Your task to perform on an android device: toggle javascript in the chrome app Image 0: 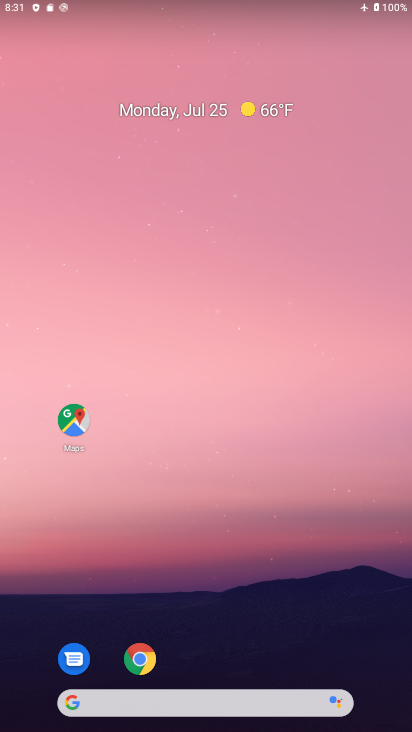
Step 0: drag from (288, 682) to (253, 133)
Your task to perform on an android device: toggle javascript in the chrome app Image 1: 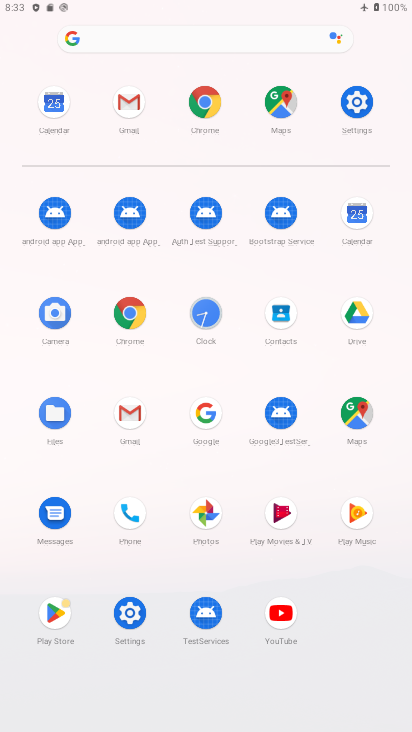
Step 1: click (131, 314)
Your task to perform on an android device: toggle javascript in the chrome app Image 2: 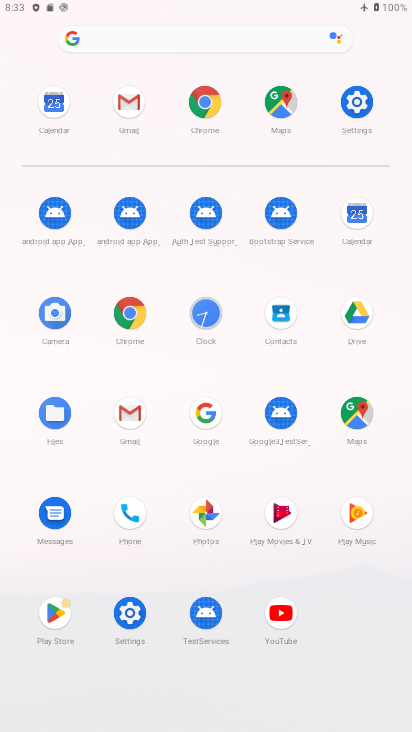
Step 2: click (131, 308)
Your task to perform on an android device: toggle javascript in the chrome app Image 3: 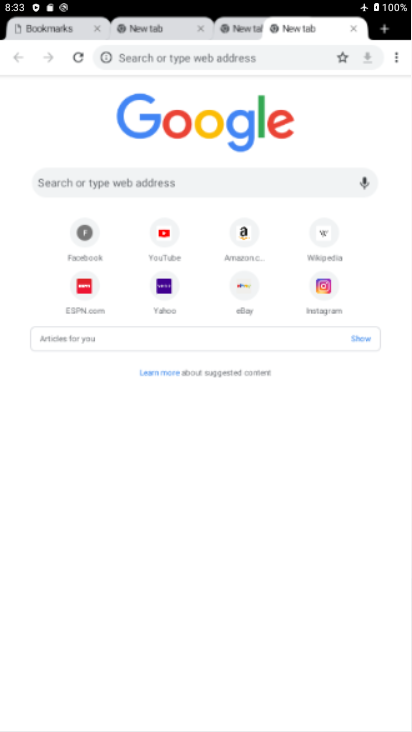
Step 3: click (137, 304)
Your task to perform on an android device: toggle javascript in the chrome app Image 4: 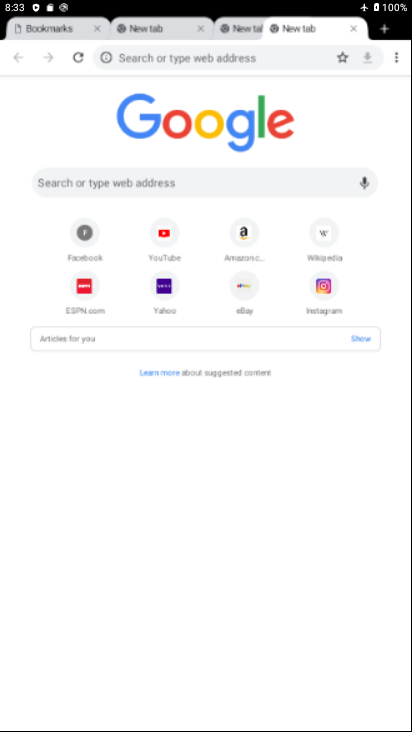
Step 4: click (136, 302)
Your task to perform on an android device: toggle javascript in the chrome app Image 5: 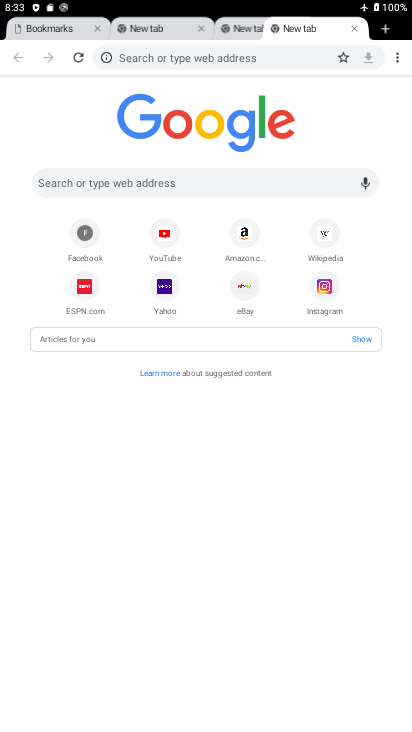
Step 5: click (404, 51)
Your task to perform on an android device: toggle javascript in the chrome app Image 6: 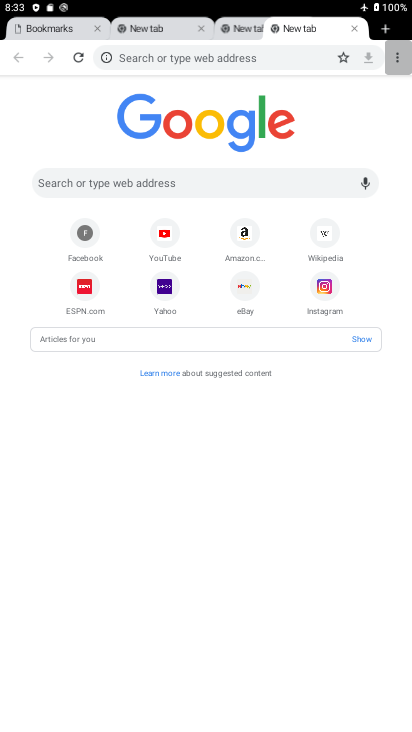
Step 6: click (394, 59)
Your task to perform on an android device: toggle javascript in the chrome app Image 7: 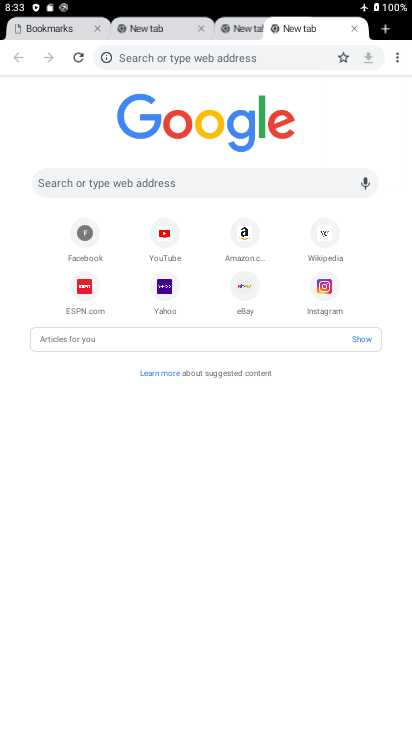
Step 7: click (394, 59)
Your task to perform on an android device: toggle javascript in the chrome app Image 8: 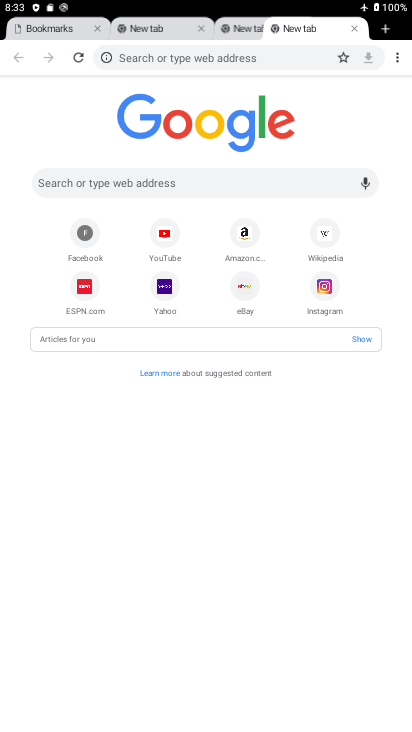
Step 8: drag from (394, 59) to (271, 257)
Your task to perform on an android device: toggle javascript in the chrome app Image 9: 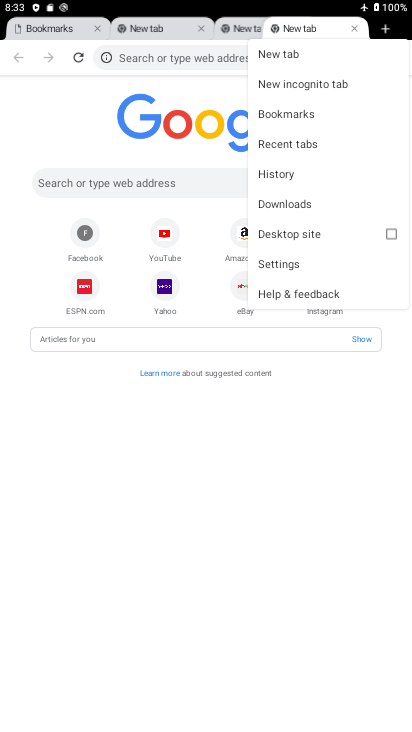
Step 9: click (272, 257)
Your task to perform on an android device: toggle javascript in the chrome app Image 10: 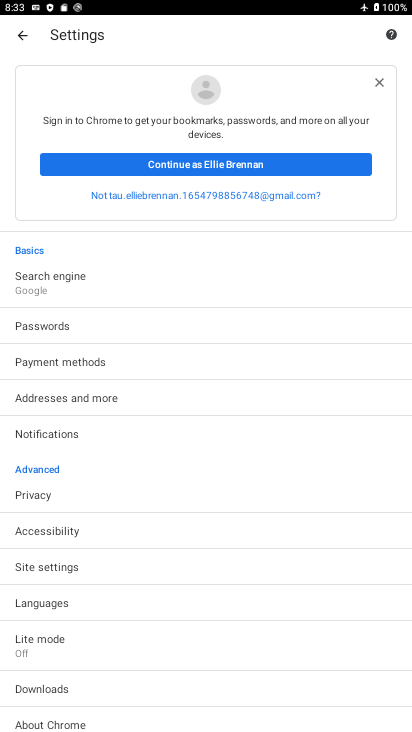
Step 10: drag from (47, 615) to (47, 305)
Your task to perform on an android device: toggle javascript in the chrome app Image 11: 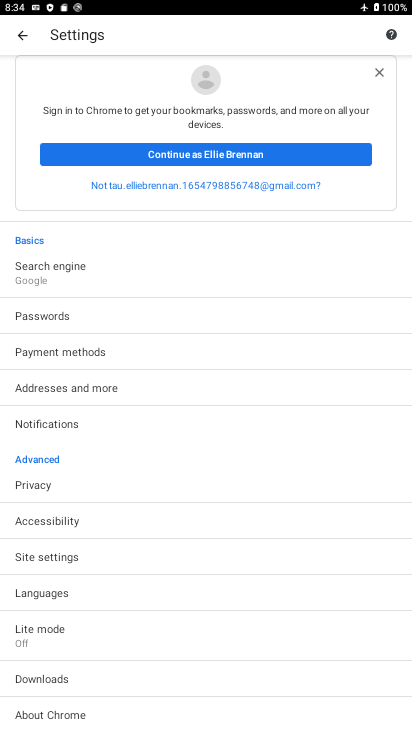
Step 11: click (39, 561)
Your task to perform on an android device: toggle javascript in the chrome app Image 12: 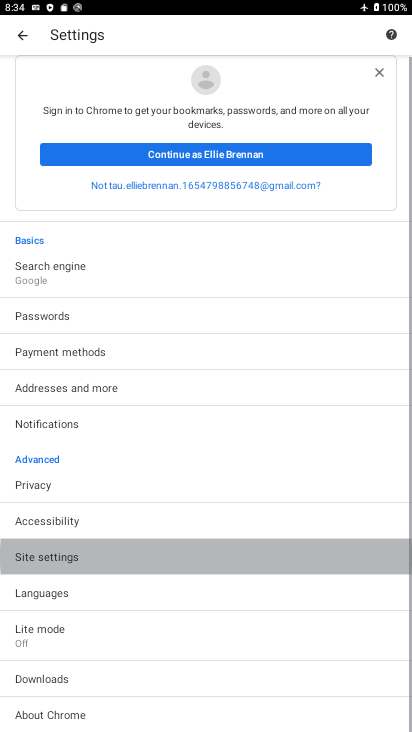
Step 12: click (45, 556)
Your task to perform on an android device: toggle javascript in the chrome app Image 13: 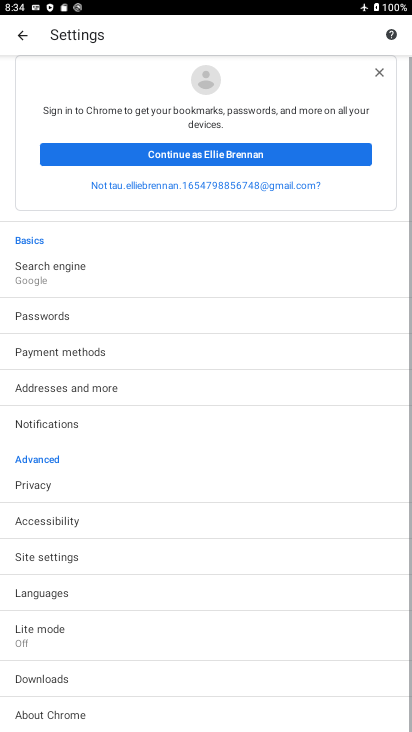
Step 13: click (46, 556)
Your task to perform on an android device: toggle javascript in the chrome app Image 14: 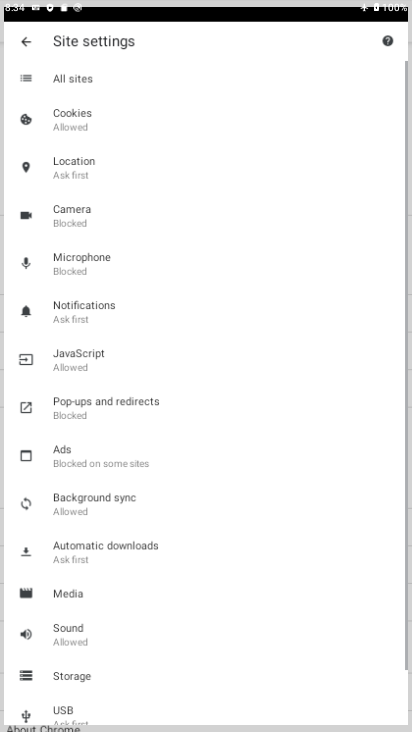
Step 14: click (47, 556)
Your task to perform on an android device: toggle javascript in the chrome app Image 15: 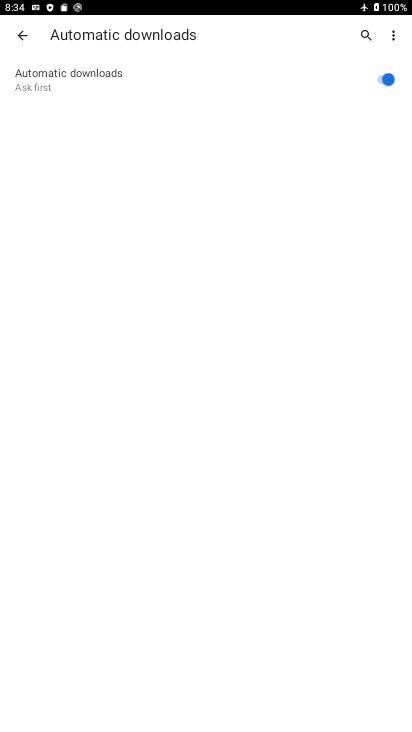
Step 15: click (15, 34)
Your task to perform on an android device: toggle javascript in the chrome app Image 16: 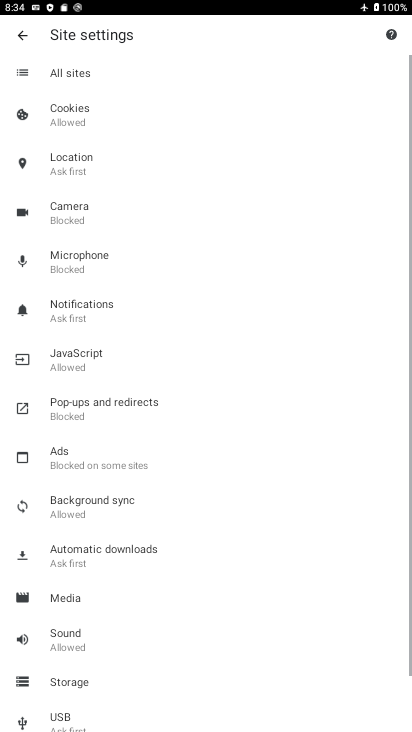
Step 16: click (66, 352)
Your task to perform on an android device: toggle javascript in the chrome app Image 17: 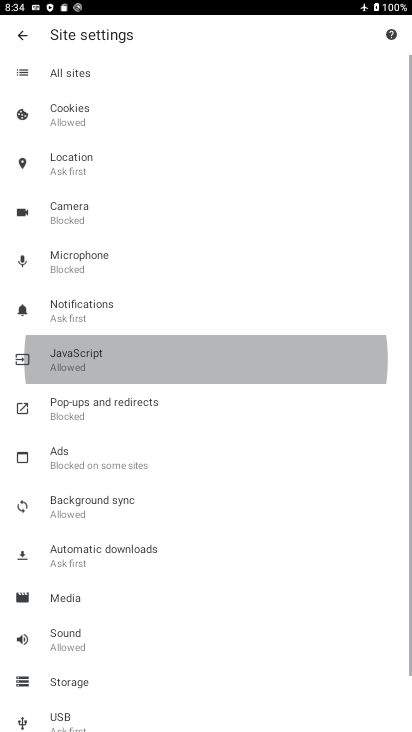
Step 17: click (66, 357)
Your task to perform on an android device: toggle javascript in the chrome app Image 18: 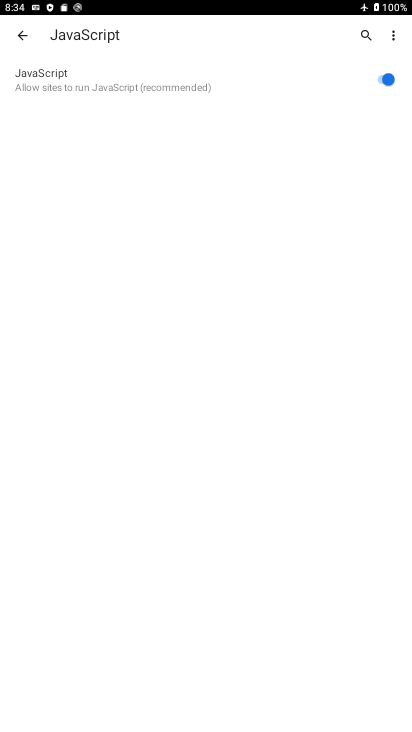
Step 18: click (369, 67)
Your task to perform on an android device: toggle javascript in the chrome app Image 19: 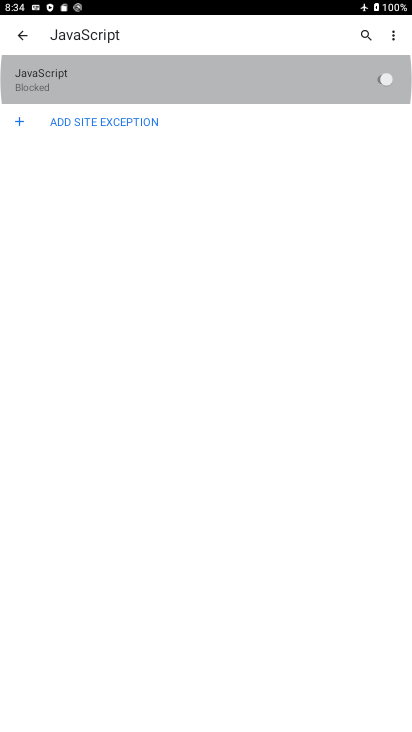
Step 19: click (382, 78)
Your task to perform on an android device: toggle javascript in the chrome app Image 20: 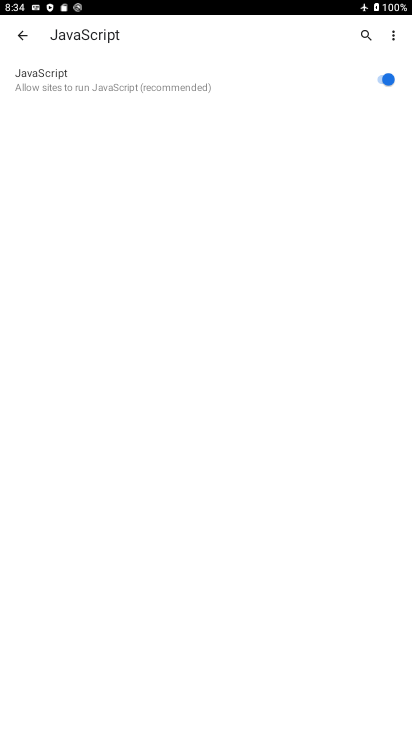
Step 20: click (393, 72)
Your task to perform on an android device: toggle javascript in the chrome app Image 21: 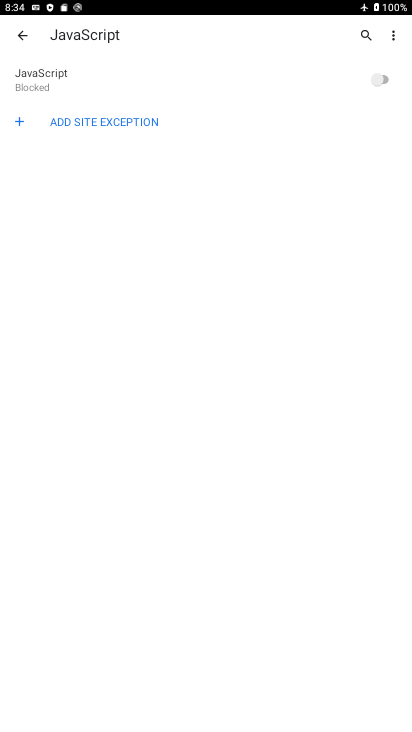
Step 21: task complete